Your task to perform on an android device: turn on improve location accuracy Image 0: 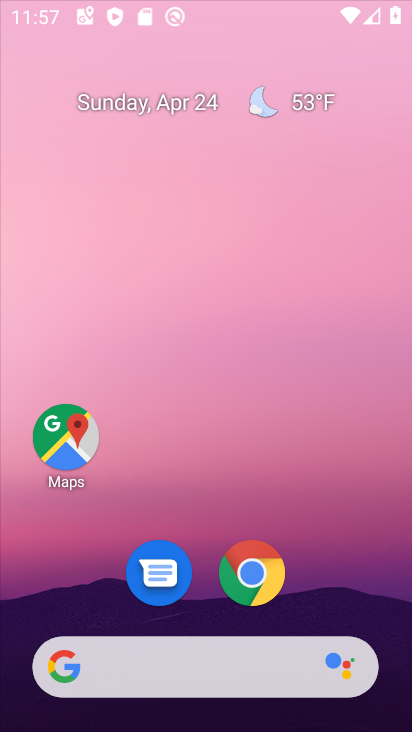
Step 0: drag from (388, 323) to (410, 180)
Your task to perform on an android device: turn on improve location accuracy Image 1: 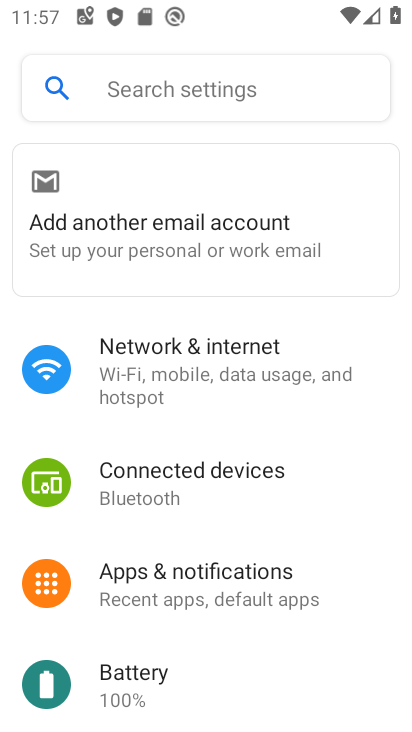
Step 1: drag from (278, 600) to (274, 241)
Your task to perform on an android device: turn on improve location accuracy Image 2: 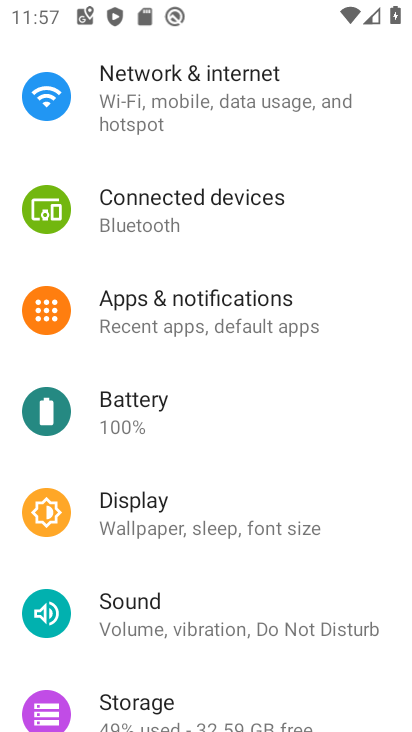
Step 2: drag from (233, 536) to (282, 161)
Your task to perform on an android device: turn on improve location accuracy Image 3: 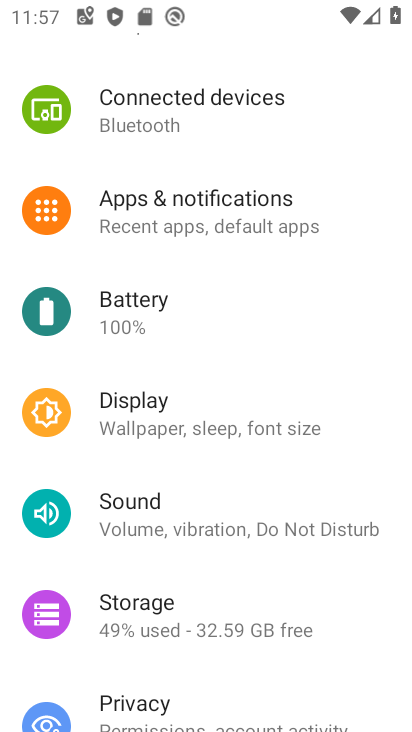
Step 3: drag from (238, 645) to (177, 298)
Your task to perform on an android device: turn on improve location accuracy Image 4: 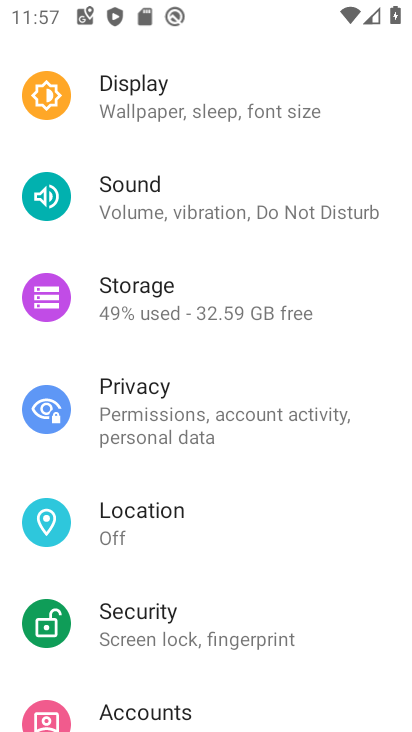
Step 4: drag from (185, 604) to (201, 305)
Your task to perform on an android device: turn on improve location accuracy Image 5: 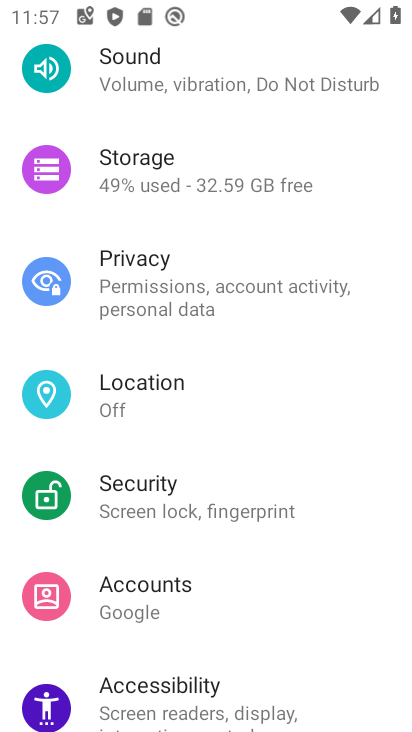
Step 5: click (164, 401)
Your task to perform on an android device: turn on improve location accuracy Image 6: 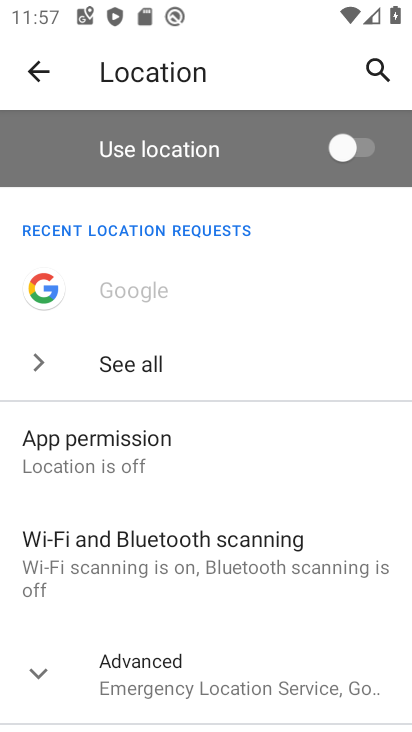
Step 6: drag from (189, 603) to (237, 206)
Your task to perform on an android device: turn on improve location accuracy Image 7: 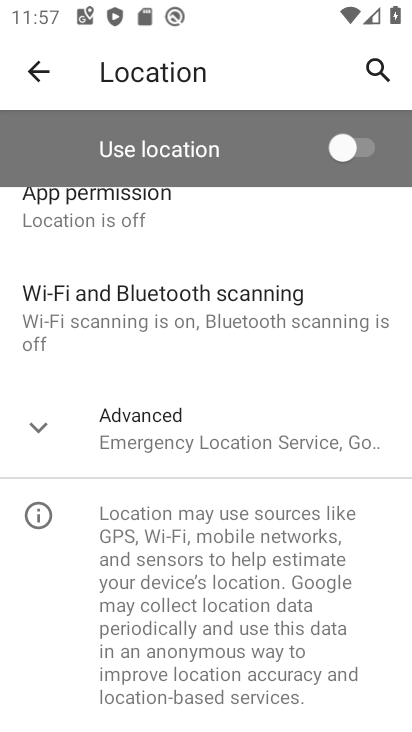
Step 7: drag from (201, 540) to (243, 211)
Your task to perform on an android device: turn on improve location accuracy Image 8: 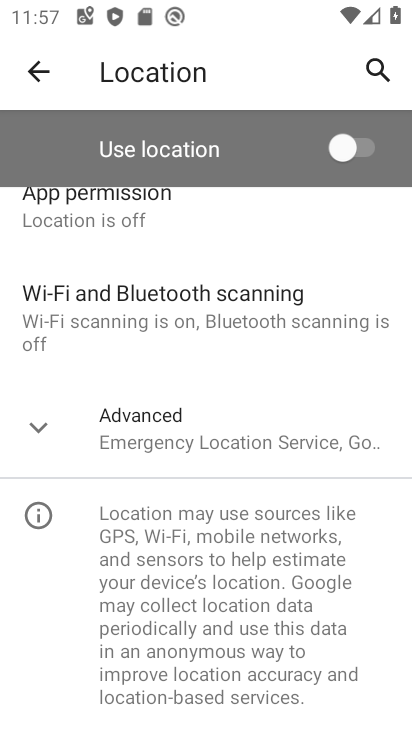
Step 8: click (190, 422)
Your task to perform on an android device: turn on improve location accuracy Image 9: 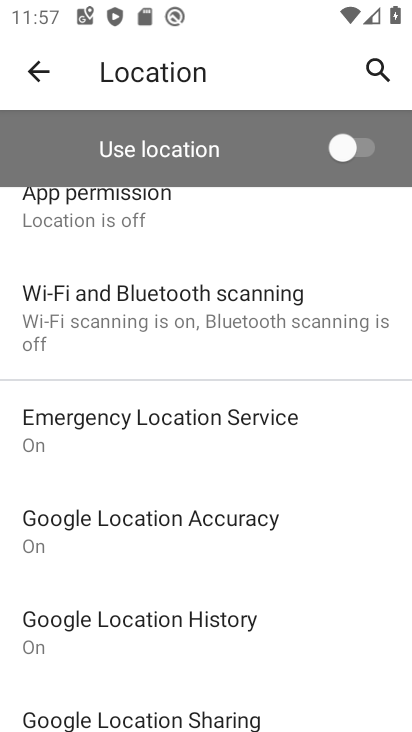
Step 9: drag from (187, 604) to (204, 310)
Your task to perform on an android device: turn on improve location accuracy Image 10: 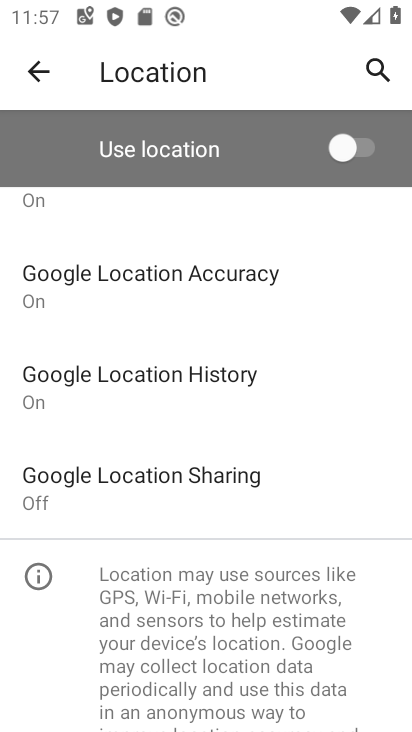
Step 10: drag from (183, 302) to (186, 588)
Your task to perform on an android device: turn on improve location accuracy Image 11: 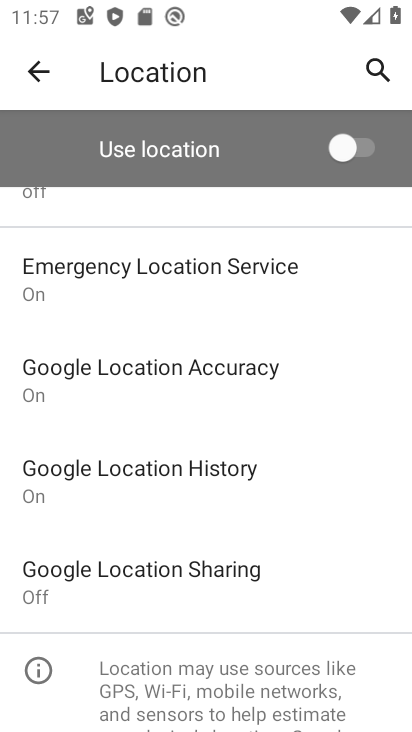
Step 11: drag from (193, 321) to (187, 616)
Your task to perform on an android device: turn on improve location accuracy Image 12: 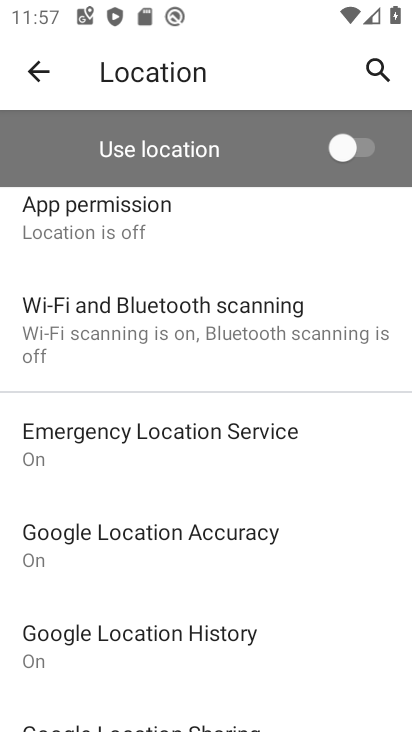
Step 12: click (159, 540)
Your task to perform on an android device: turn on improve location accuracy Image 13: 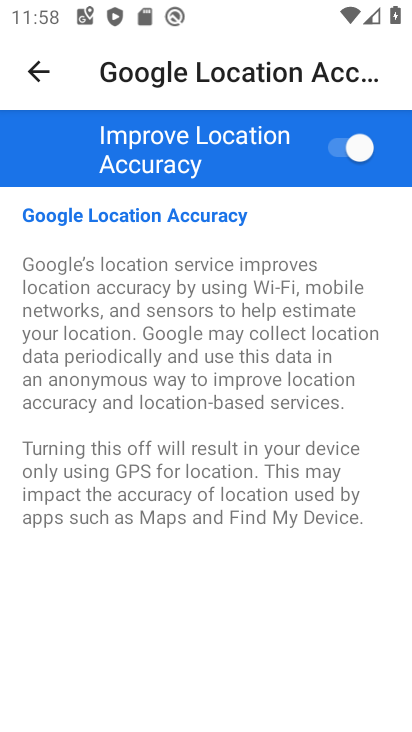
Step 13: task complete